Your task to perform on an android device: Open Google Image 0: 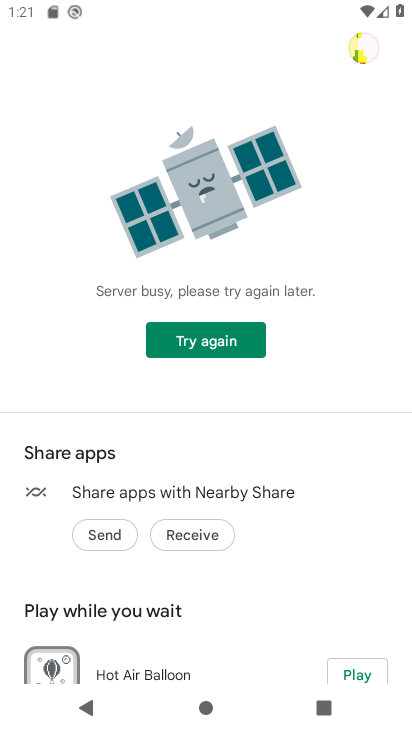
Step 0: press home button
Your task to perform on an android device: Open Google Image 1: 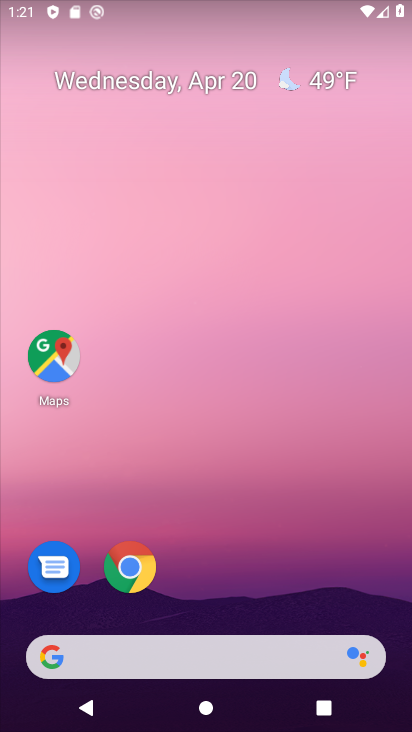
Step 1: click (145, 580)
Your task to perform on an android device: Open Google Image 2: 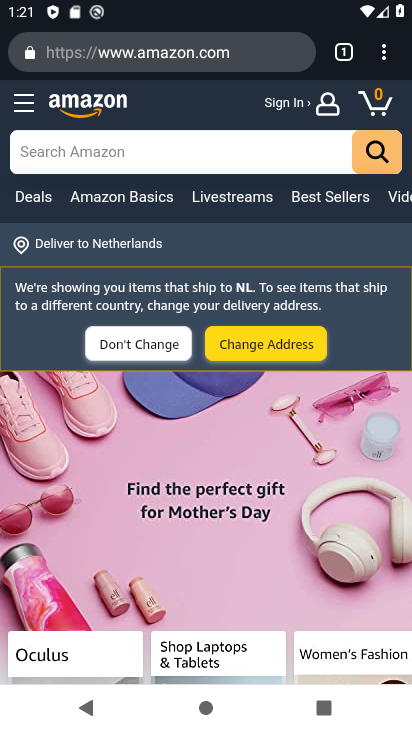
Step 2: task complete